Your task to perform on an android device: add a contact Image 0: 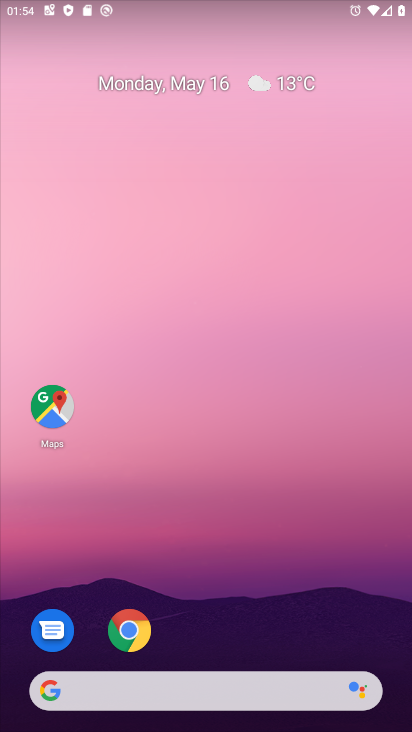
Step 0: drag from (242, 512) to (345, 26)
Your task to perform on an android device: add a contact Image 1: 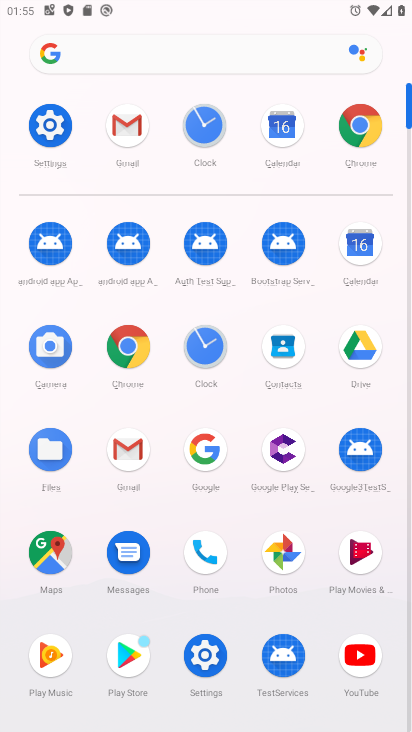
Step 1: click (272, 351)
Your task to perform on an android device: add a contact Image 2: 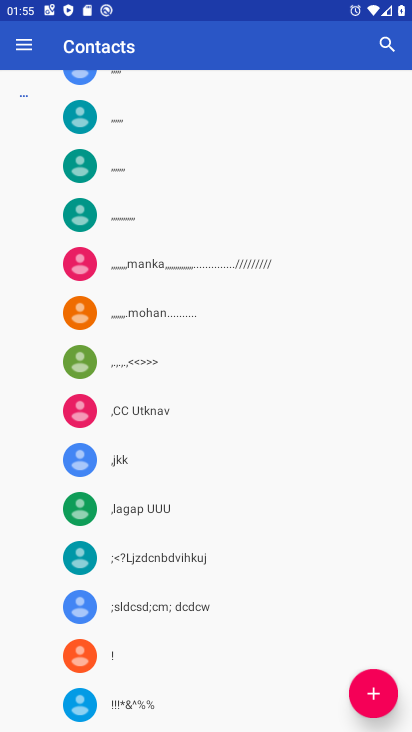
Step 2: click (386, 698)
Your task to perform on an android device: add a contact Image 3: 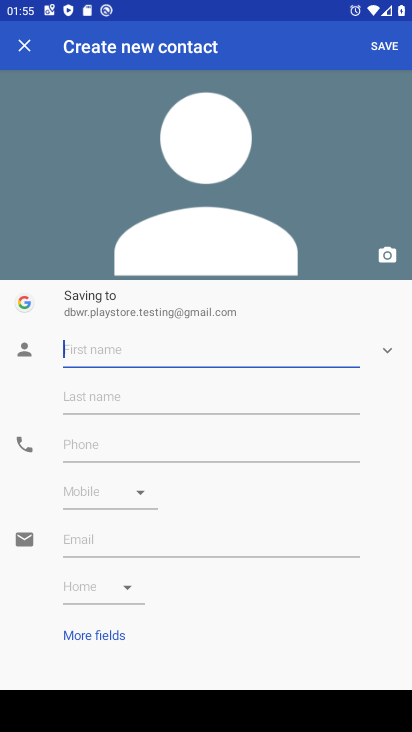
Step 3: click (137, 344)
Your task to perform on an android device: add a contact Image 4: 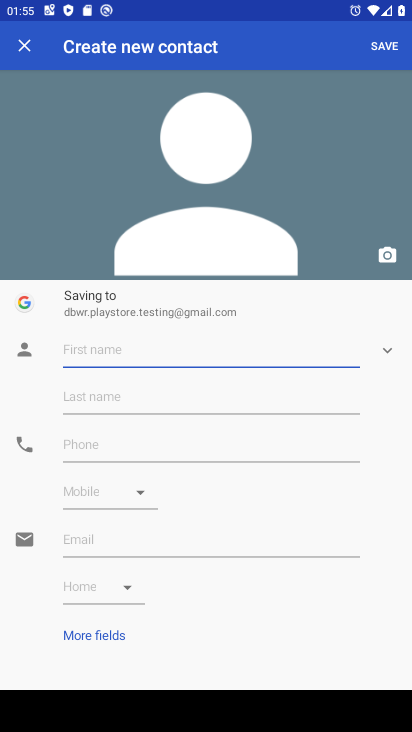
Step 4: type "dufjgtjbtjgi"
Your task to perform on an android device: add a contact Image 5: 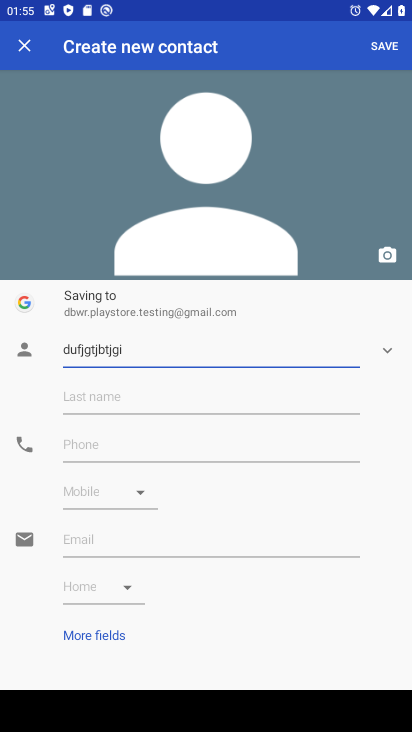
Step 5: click (195, 428)
Your task to perform on an android device: add a contact Image 6: 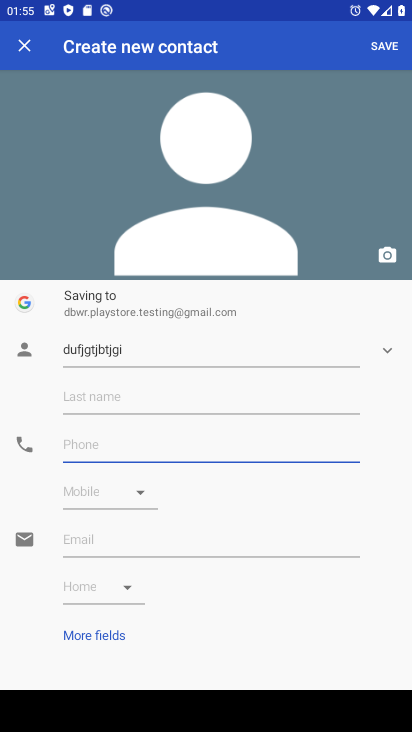
Step 6: type "9774556856"
Your task to perform on an android device: add a contact Image 7: 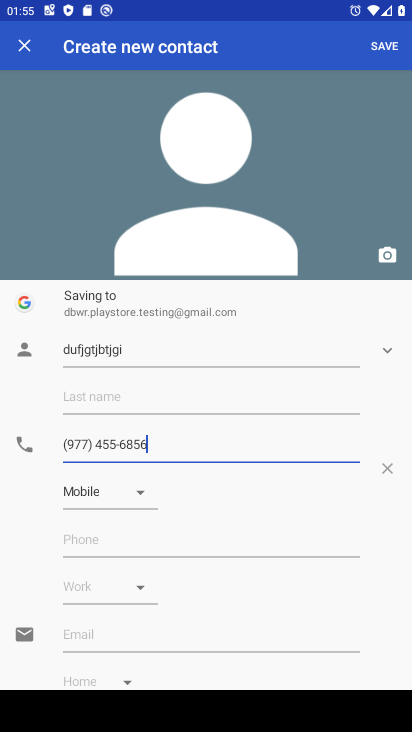
Step 7: click (389, 41)
Your task to perform on an android device: add a contact Image 8: 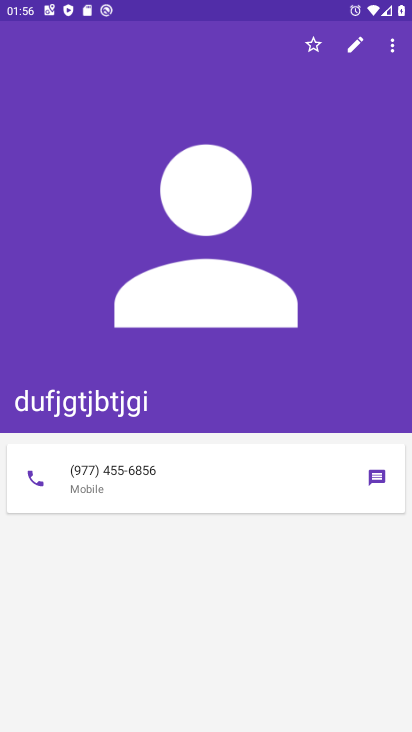
Step 8: task complete